Your task to perform on an android device: make emails show in primary in the gmail app Image 0: 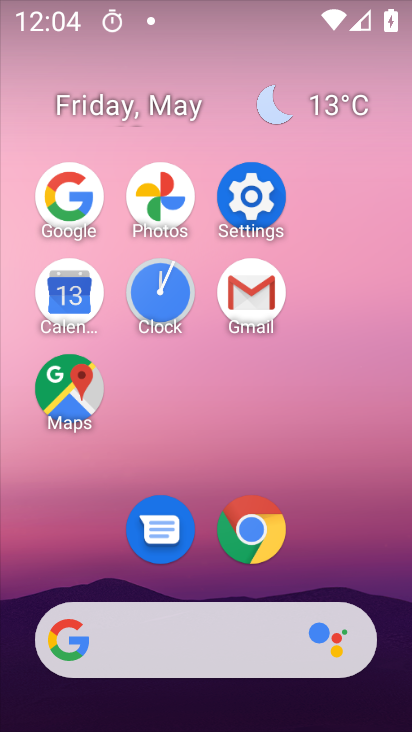
Step 0: click (274, 299)
Your task to perform on an android device: make emails show in primary in the gmail app Image 1: 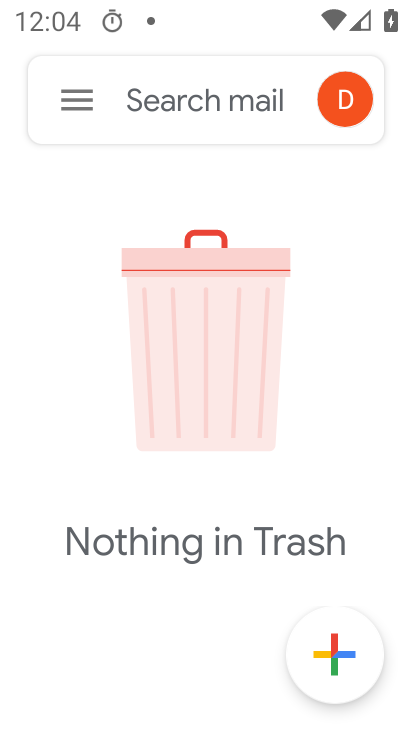
Step 1: click (52, 127)
Your task to perform on an android device: make emails show in primary in the gmail app Image 2: 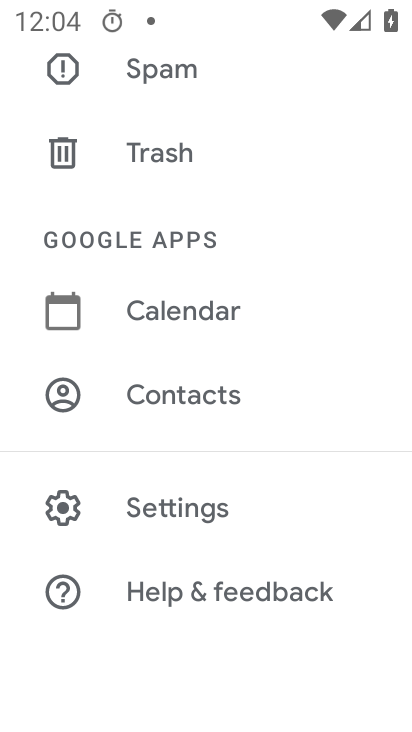
Step 2: click (172, 468)
Your task to perform on an android device: make emails show in primary in the gmail app Image 3: 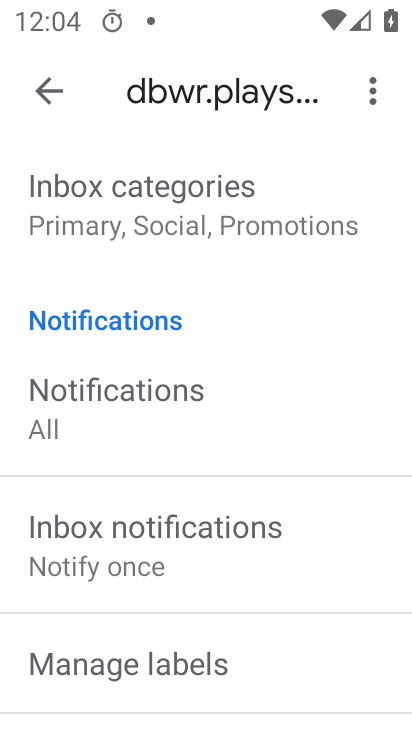
Step 3: drag from (172, 466) to (232, 676)
Your task to perform on an android device: make emails show in primary in the gmail app Image 4: 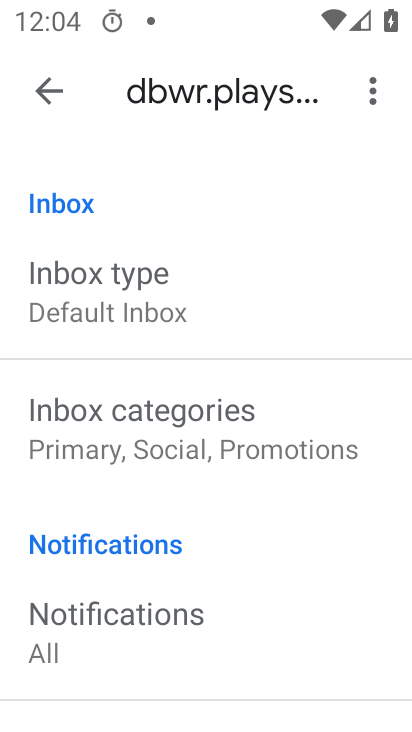
Step 4: click (199, 413)
Your task to perform on an android device: make emails show in primary in the gmail app Image 5: 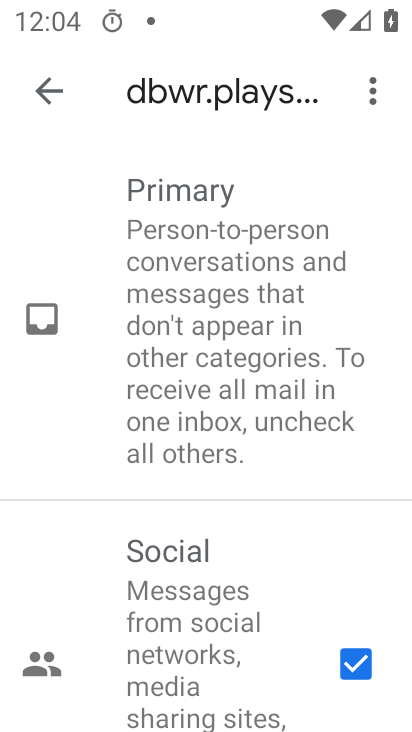
Step 5: click (350, 650)
Your task to perform on an android device: make emails show in primary in the gmail app Image 6: 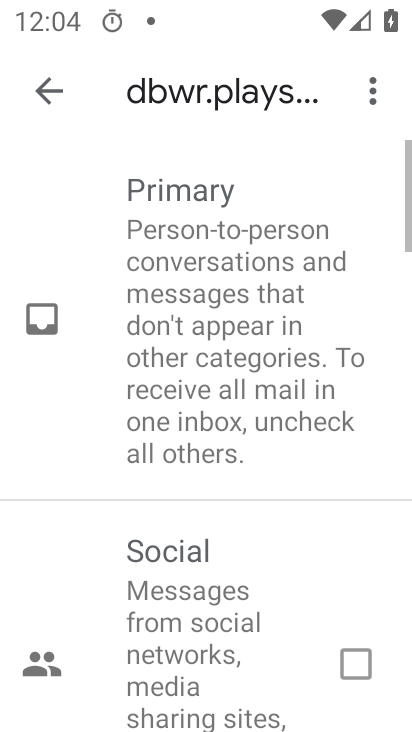
Step 6: drag from (313, 550) to (301, 130)
Your task to perform on an android device: make emails show in primary in the gmail app Image 7: 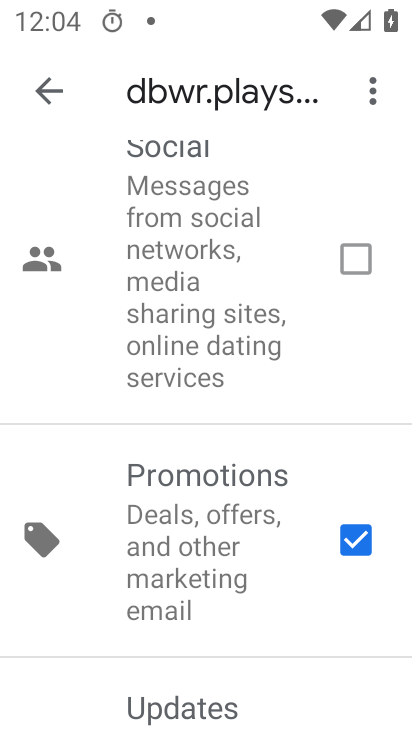
Step 7: click (355, 543)
Your task to perform on an android device: make emails show in primary in the gmail app Image 8: 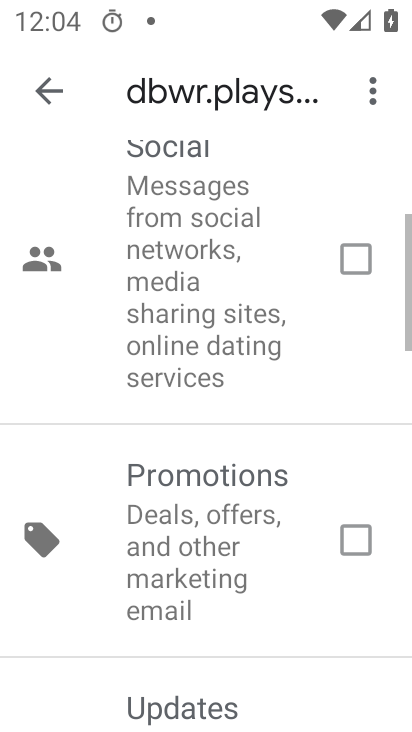
Step 8: task complete